Your task to perform on an android device: turn notification dots on Image 0: 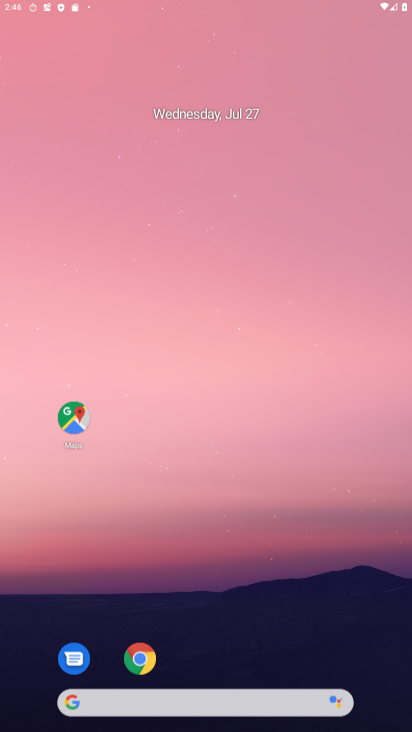
Step 0: click (212, 155)
Your task to perform on an android device: turn notification dots on Image 1: 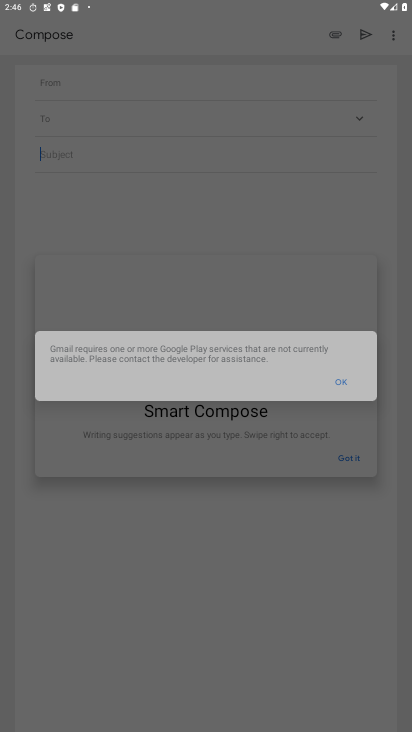
Step 1: press home button
Your task to perform on an android device: turn notification dots on Image 2: 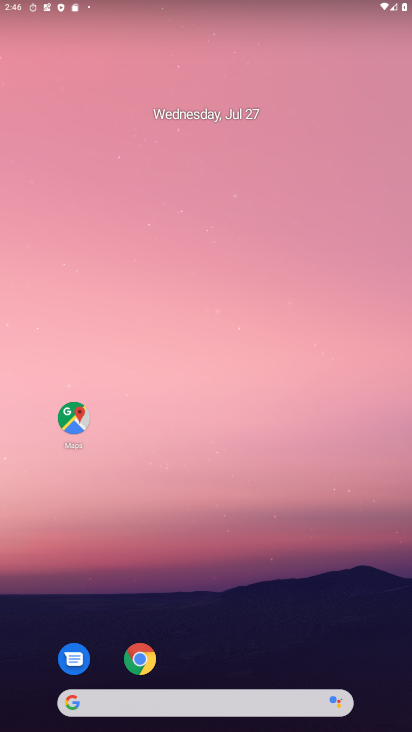
Step 2: drag from (226, 726) to (229, 188)
Your task to perform on an android device: turn notification dots on Image 3: 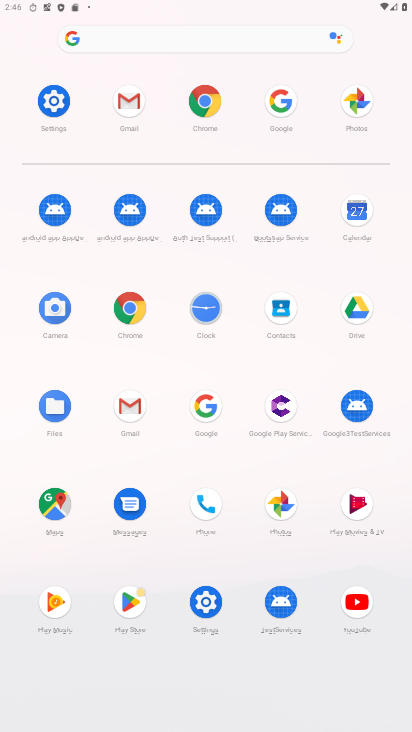
Step 3: click (49, 99)
Your task to perform on an android device: turn notification dots on Image 4: 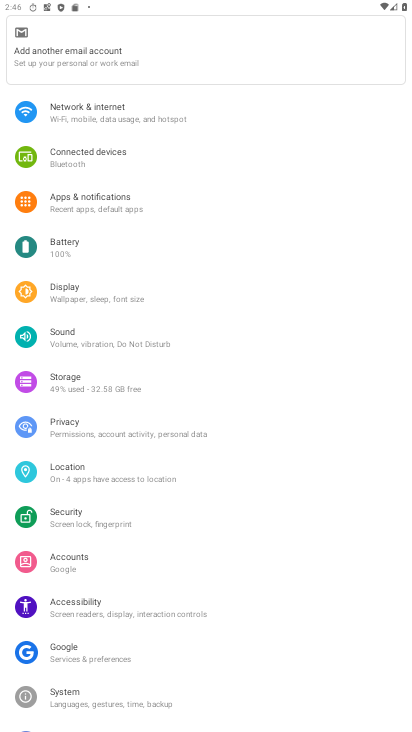
Step 4: click (59, 196)
Your task to perform on an android device: turn notification dots on Image 5: 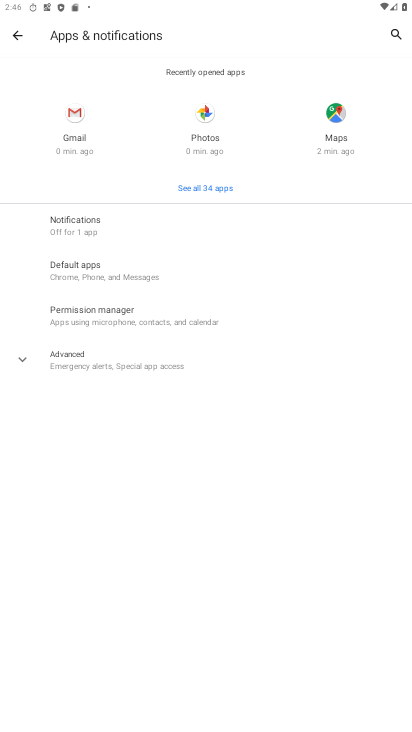
Step 5: click (69, 230)
Your task to perform on an android device: turn notification dots on Image 6: 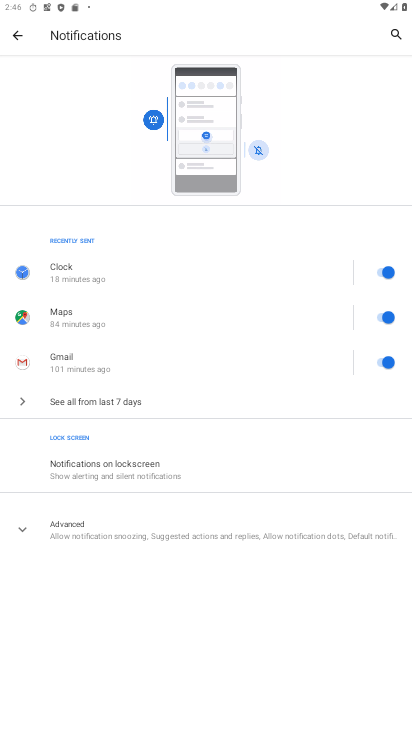
Step 6: click (126, 535)
Your task to perform on an android device: turn notification dots on Image 7: 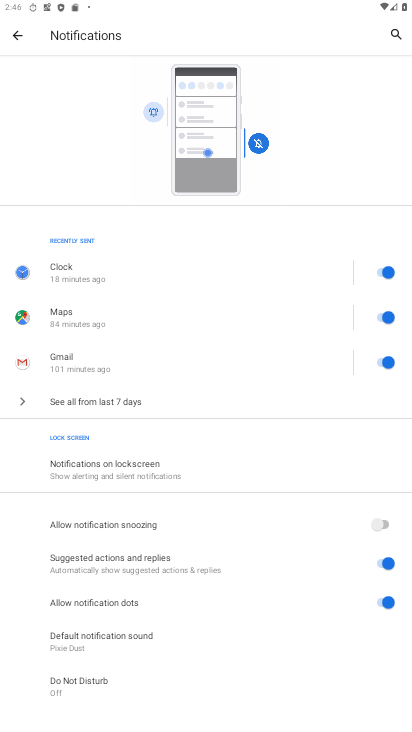
Step 7: task complete